Your task to perform on an android device: open a new tab in the chrome app Image 0: 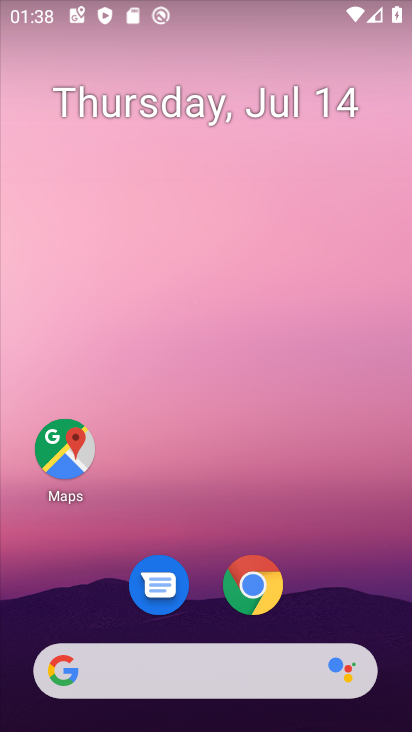
Step 0: click (265, 582)
Your task to perform on an android device: open a new tab in the chrome app Image 1: 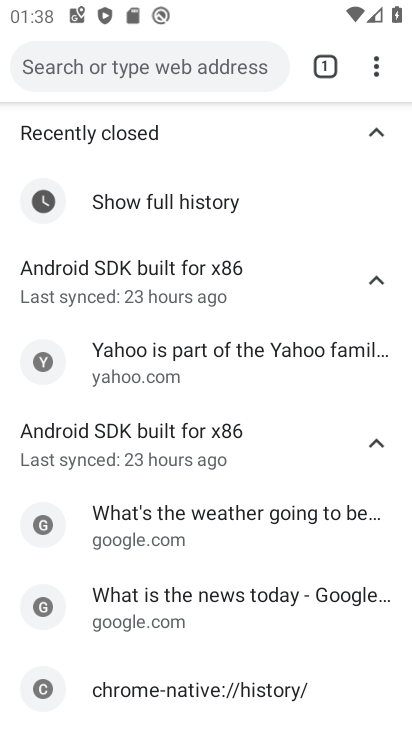
Step 1: click (373, 58)
Your task to perform on an android device: open a new tab in the chrome app Image 2: 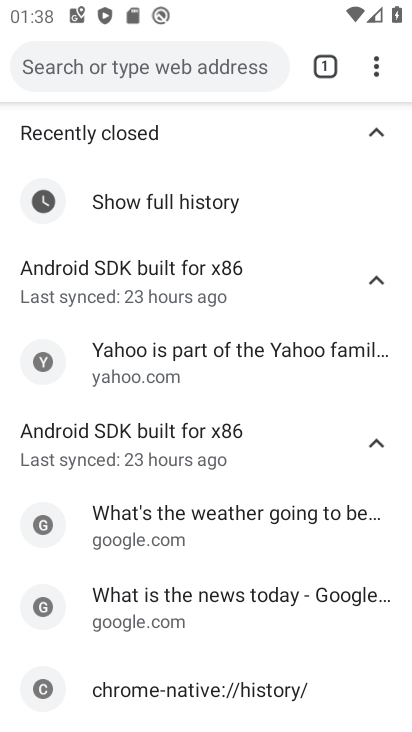
Step 2: click (379, 64)
Your task to perform on an android device: open a new tab in the chrome app Image 3: 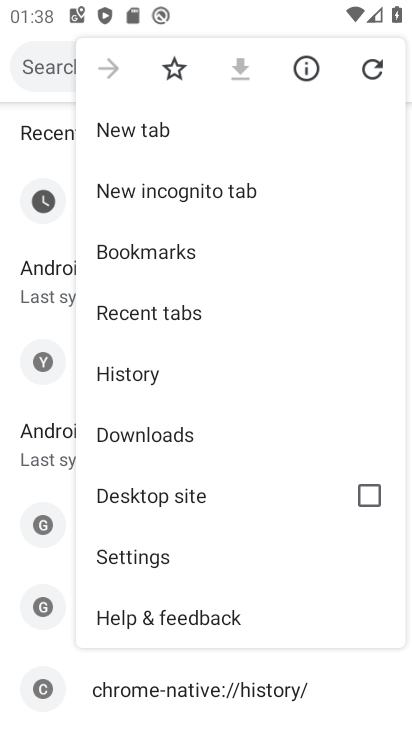
Step 3: click (292, 129)
Your task to perform on an android device: open a new tab in the chrome app Image 4: 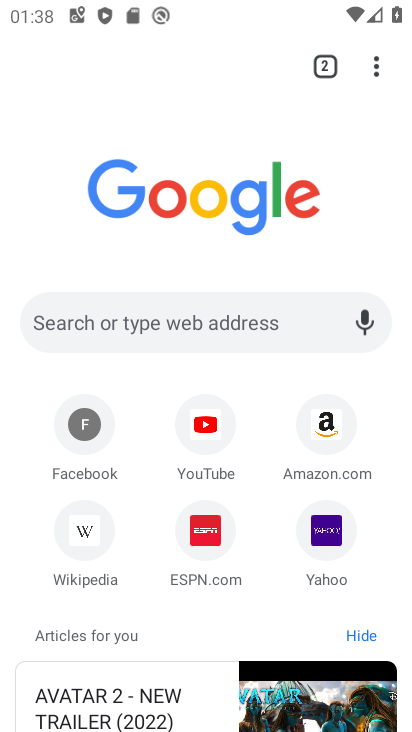
Step 4: task complete